Your task to perform on an android device: install app "Google Translate" Image 0: 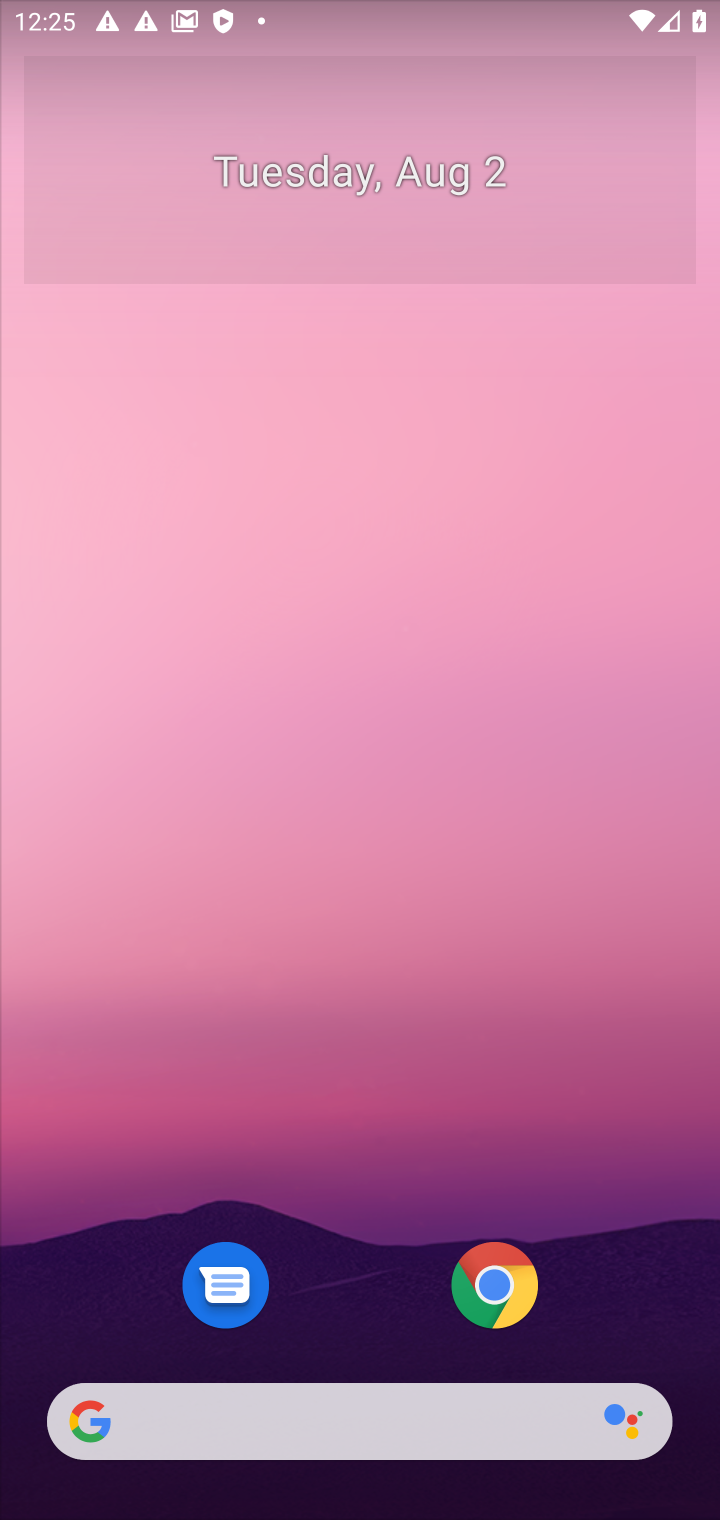
Step 0: drag from (610, 1273) to (483, 190)
Your task to perform on an android device: install app "Google Translate" Image 1: 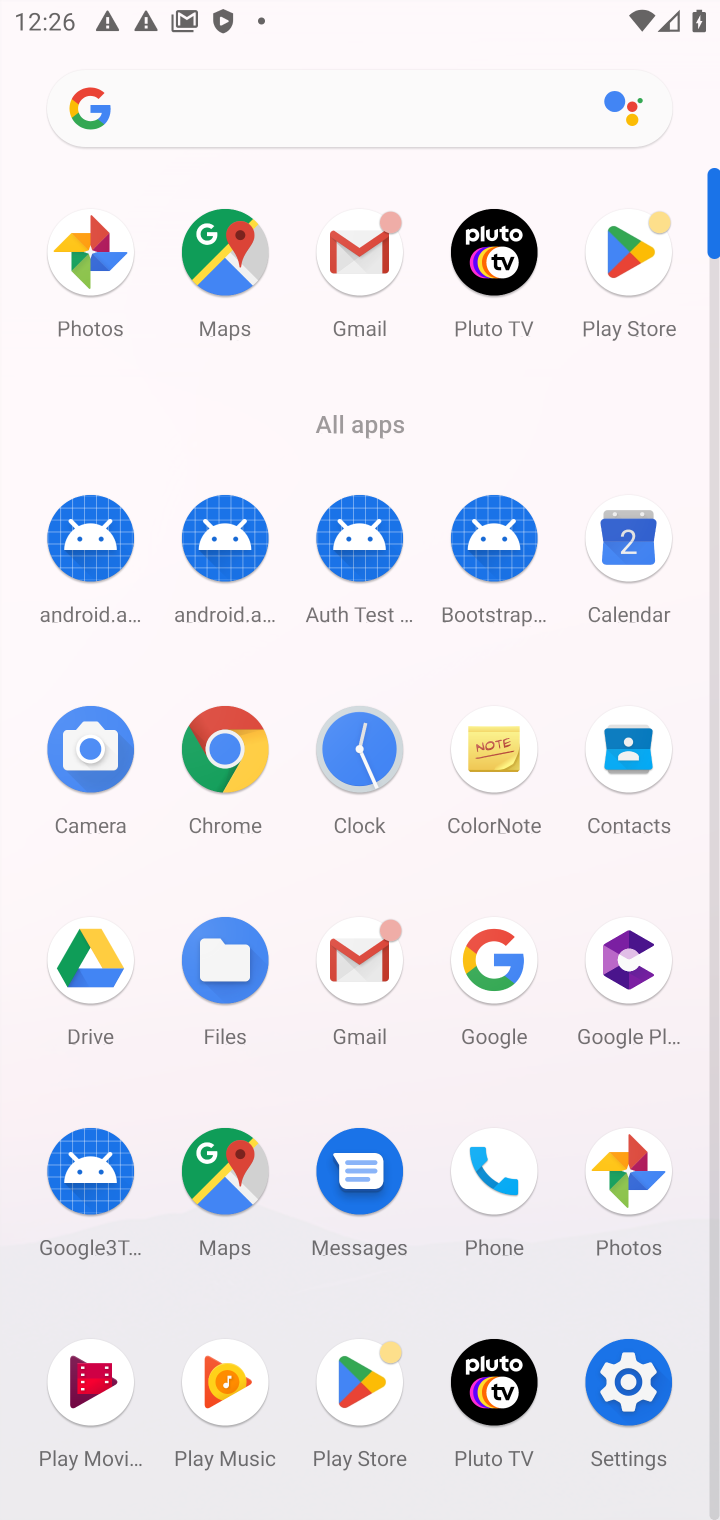
Step 1: click (356, 1369)
Your task to perform on an android device: install app "Google Translate" Image 2: 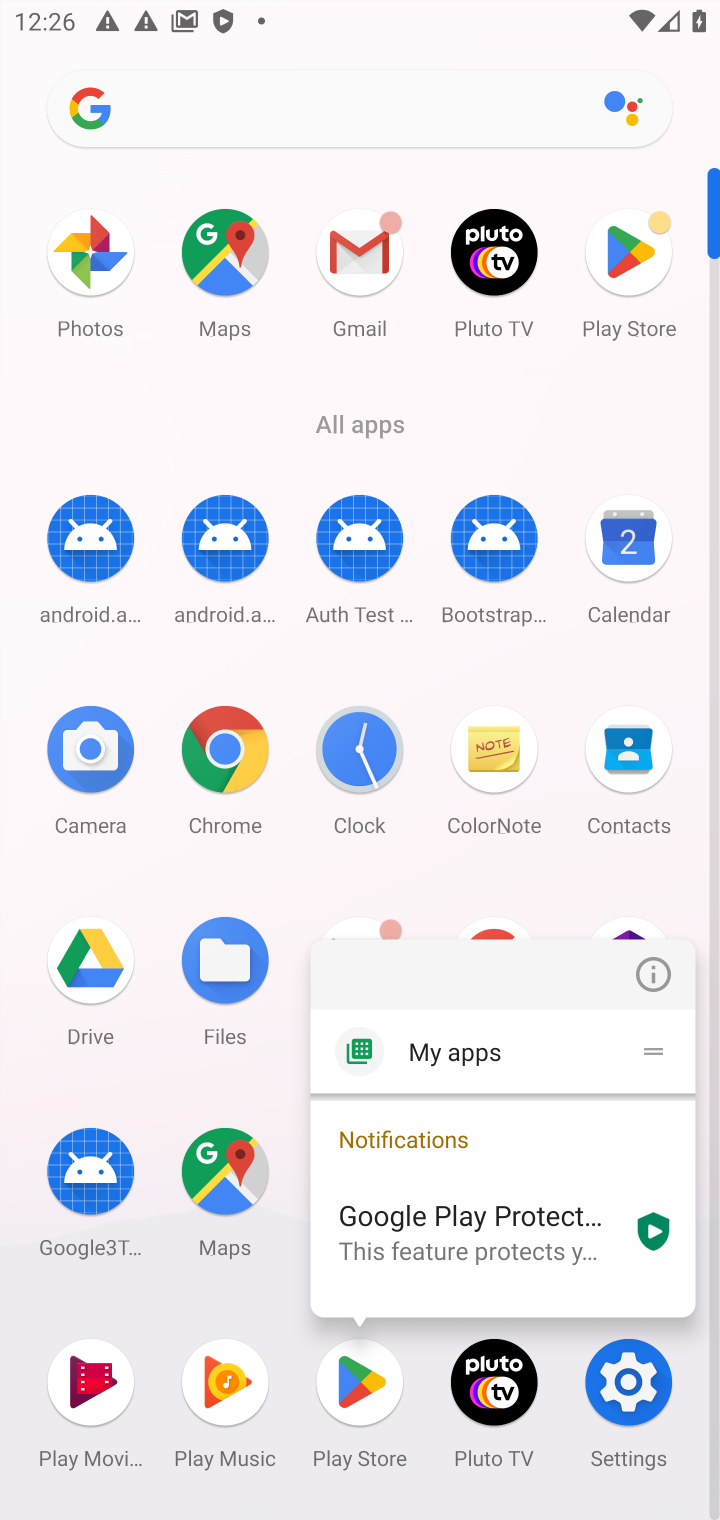
Step 2: click (356, 1362)
Your task to perform on an android device: install app "Google Translate" Image 3: 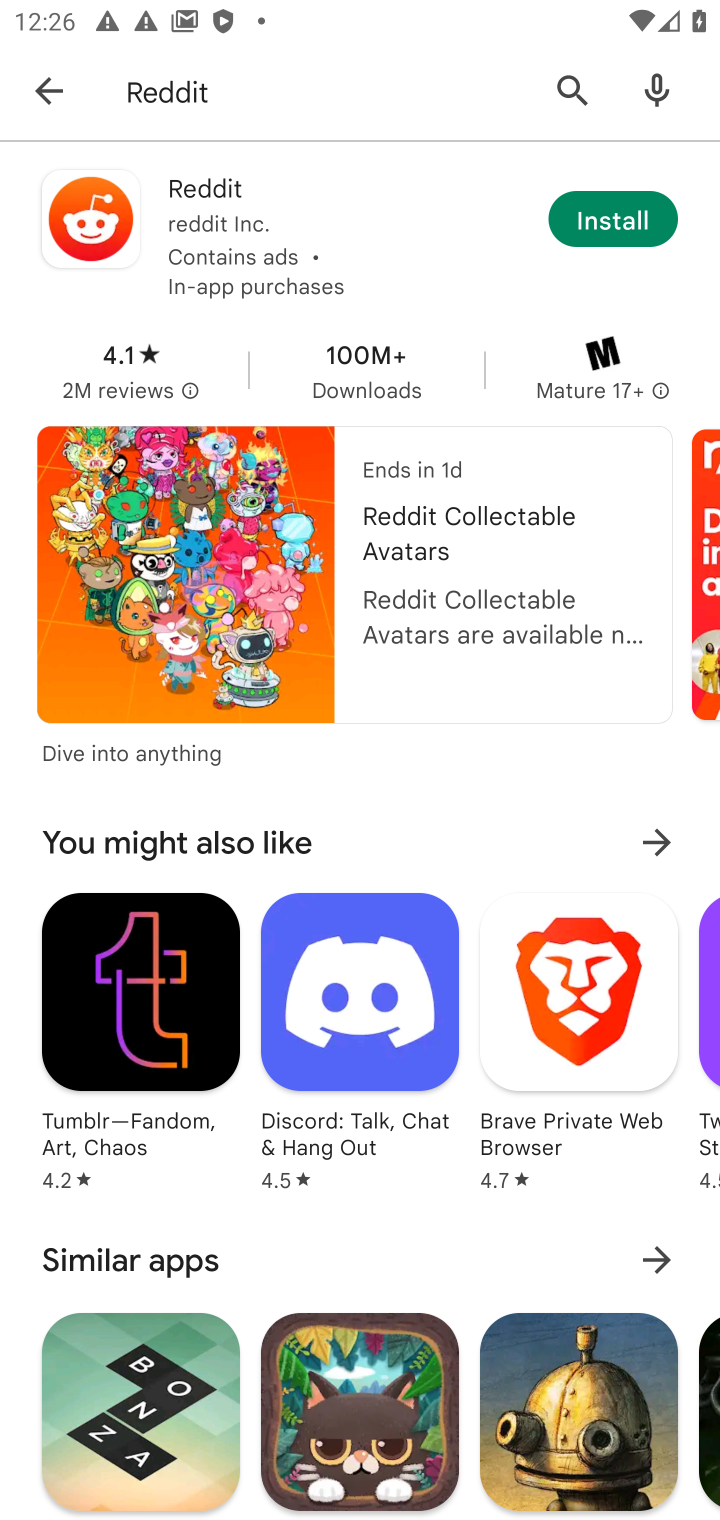
Step 3: click (439, 100)
Your task to perform on an android device: install app "Google Translate" Image 4: 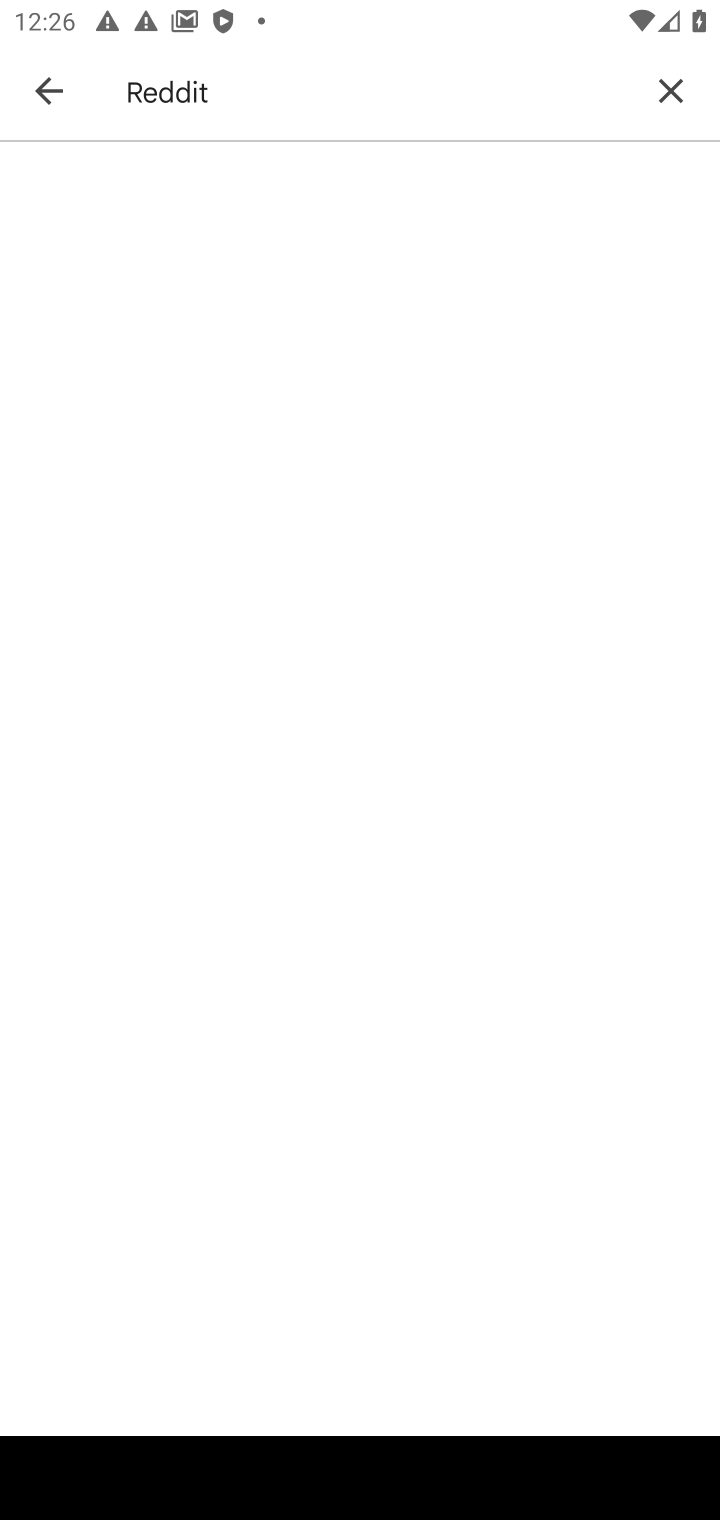
Step 4: click (669, 100)
Your task to perform on an android device: install app "Google Translate" Image 5: 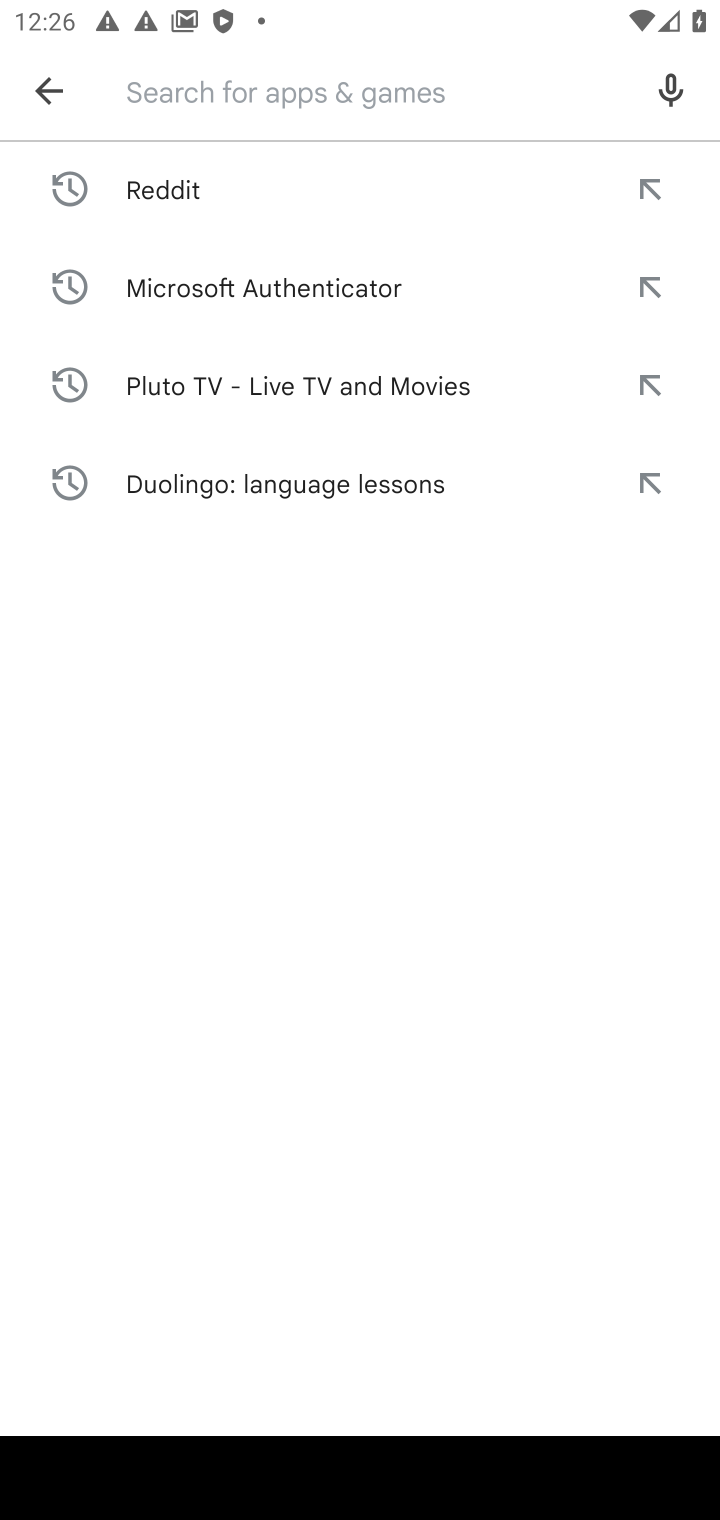
Step 5: type "Google Translate"
Your task to perform on an android device: install app "Google Translate" Image 6: 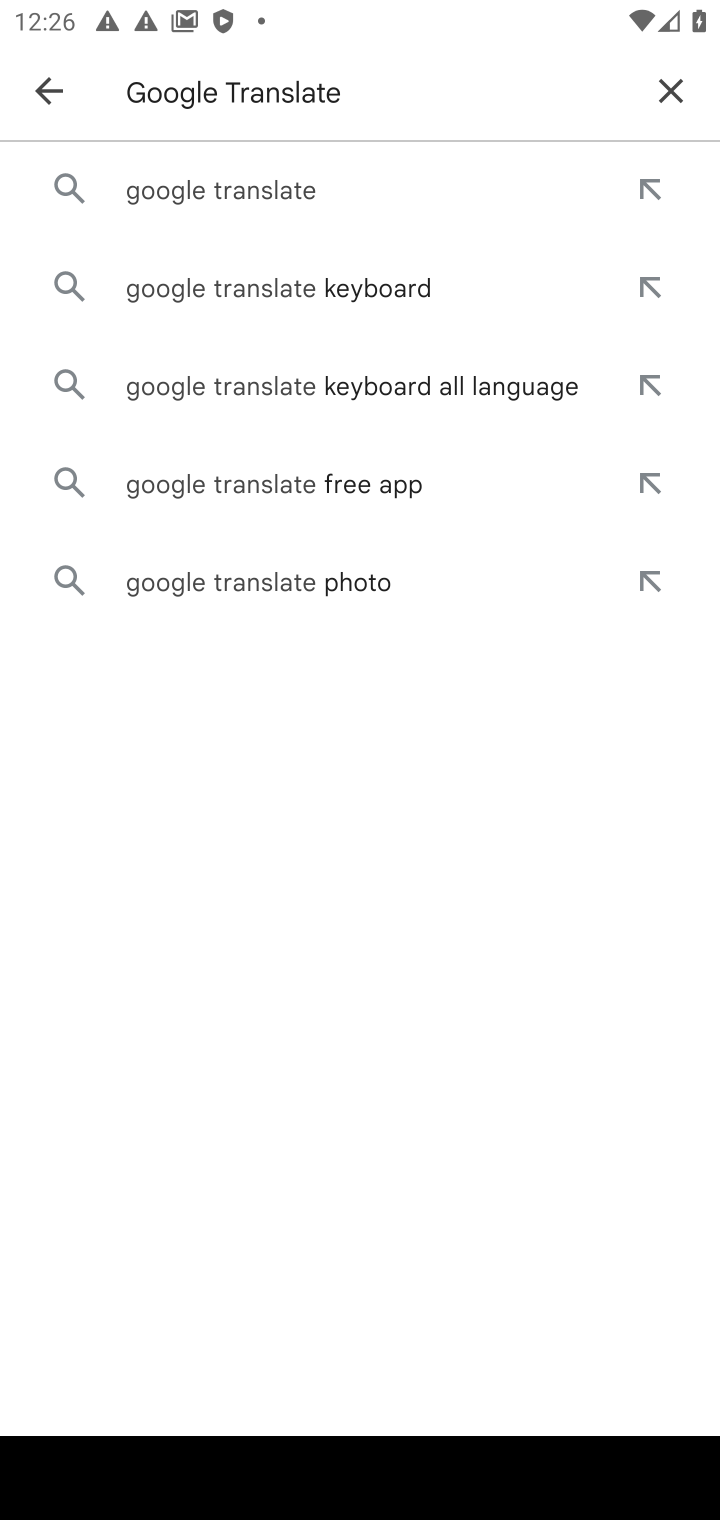
Step 6: press enter
Your task to perform on an android device: install app "Google Translate" Image 7: 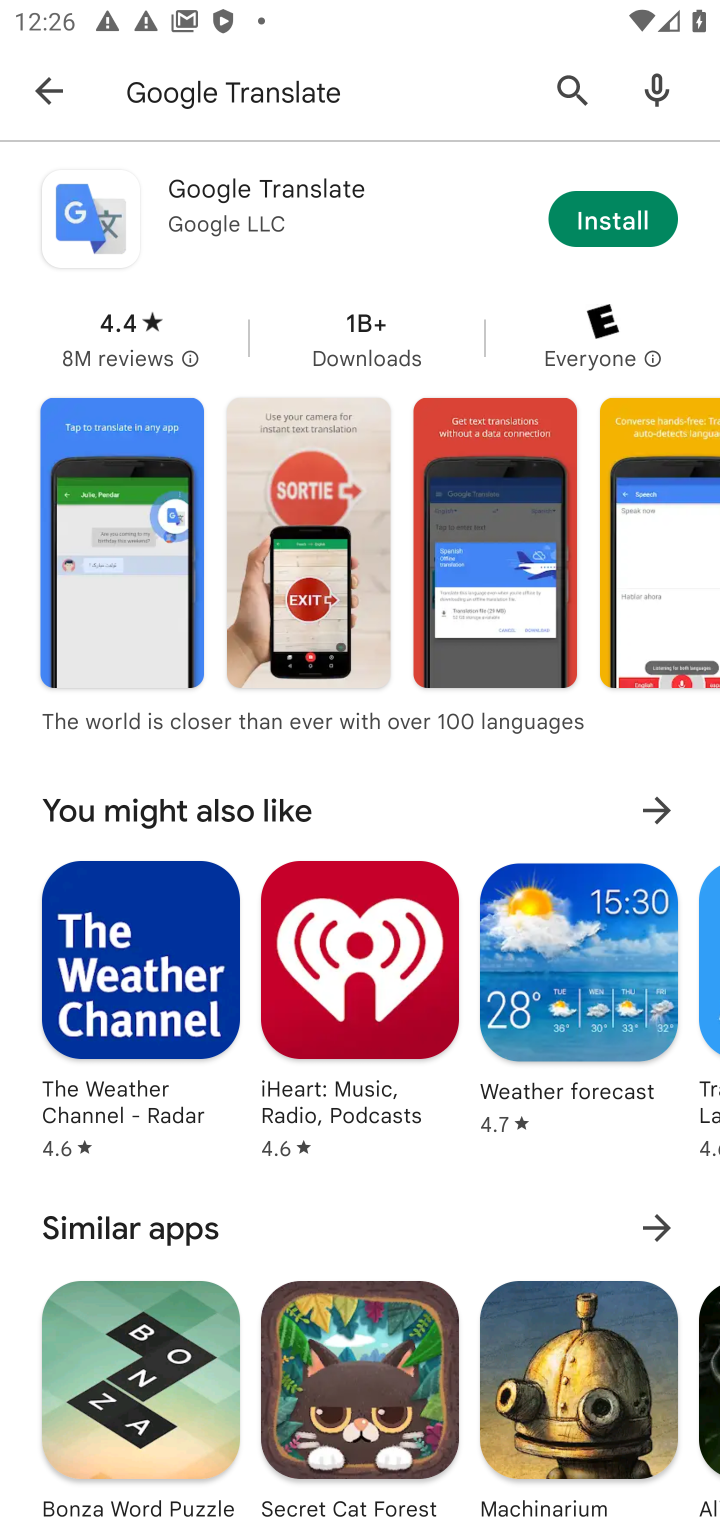
Step 7: click (633, 214)
Your task to perform on an android device: install app "Google Translate" Image 8: 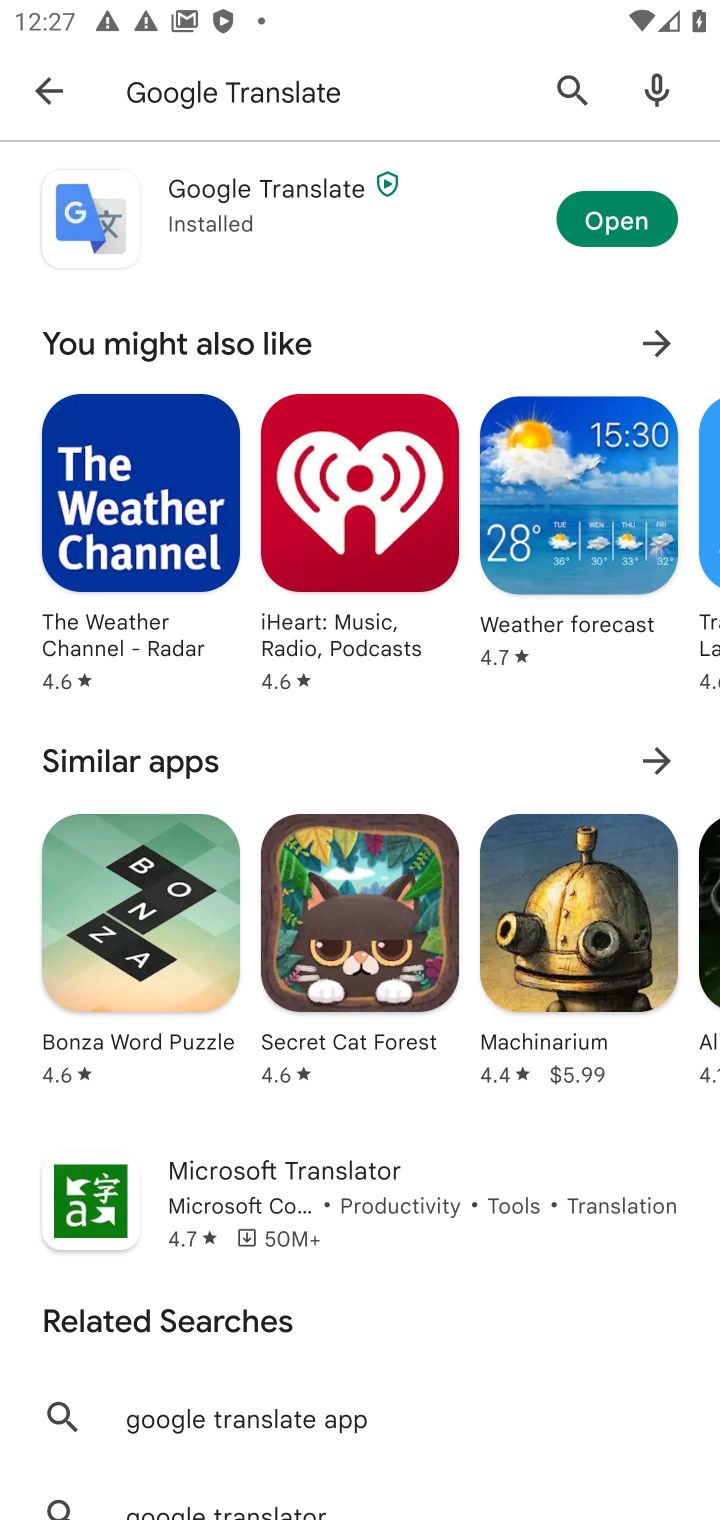
Step 8: task complete